Your task to perform on an android device: turn on location history Image 0: 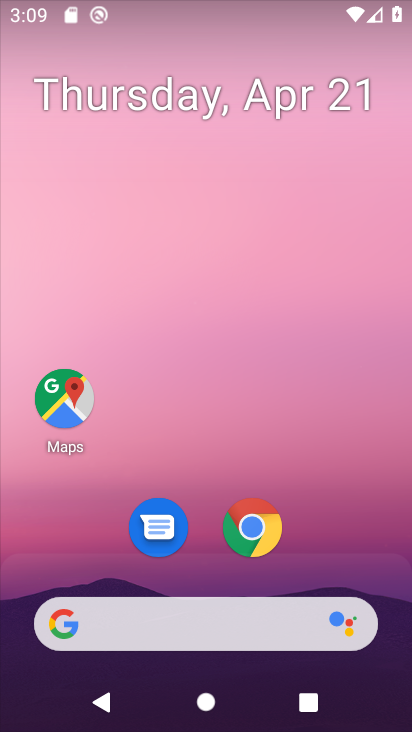
Step 0: click (257, 423)
Your task to perform on an android device: turn on location history Image 1: 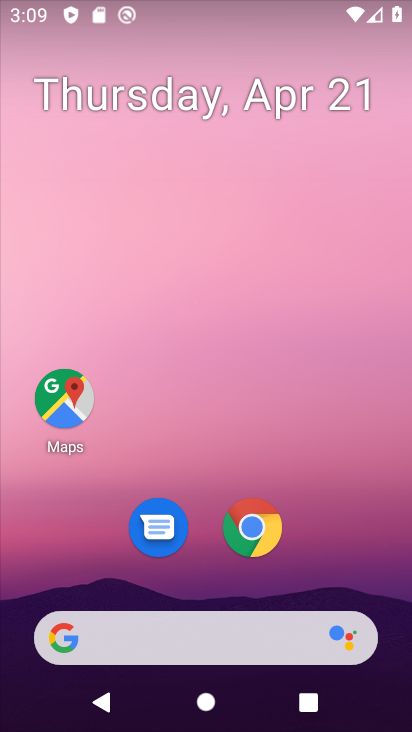
Step 1: drag from (279, 359) to (398, 122)
Your task to perform on an android device: turn on location history Image 2: 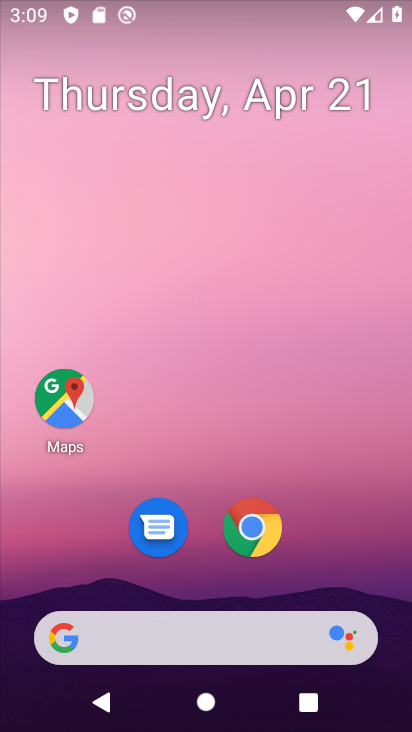
Step 2: drag from (155, 617) to (220, 105)
Your task to perform on an android device: turn on location history Image 3: 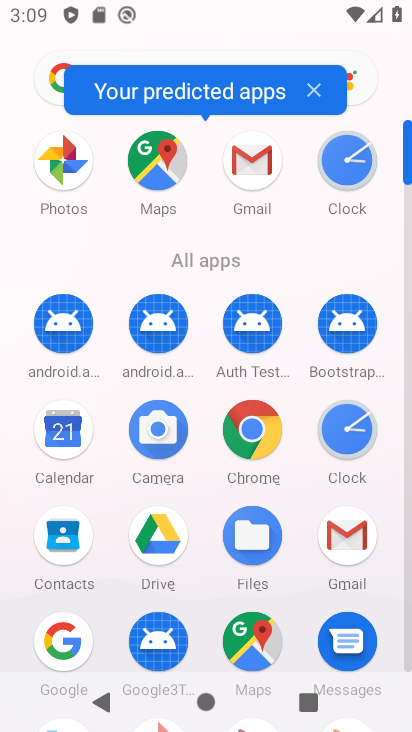
Step 3: drag from (200, 633) to (313, 282)
Your task to perform on an android device: turn on location history Image 4: 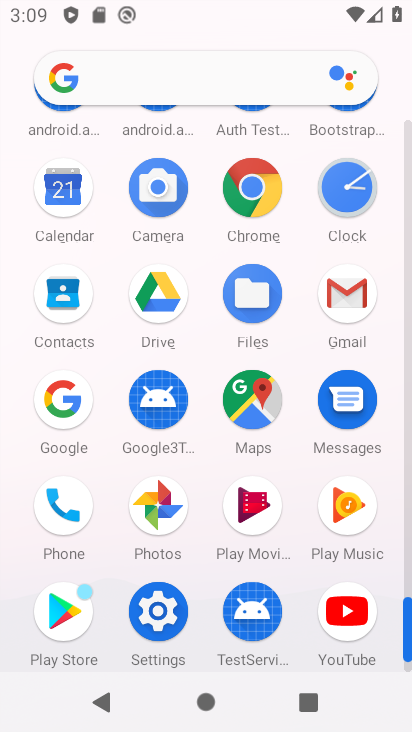
Step 4: click (165, 630)
Your task to perform on an android device: turn on location history Image 5: 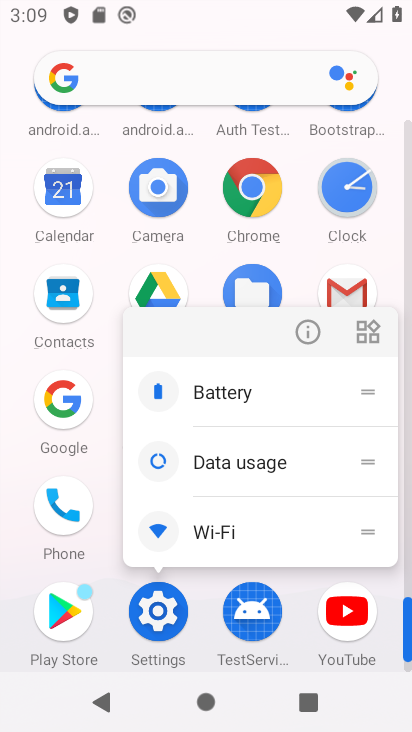
Step 5: click (162, 625)
Your task to perform on an android device: turn on location history Image 6: 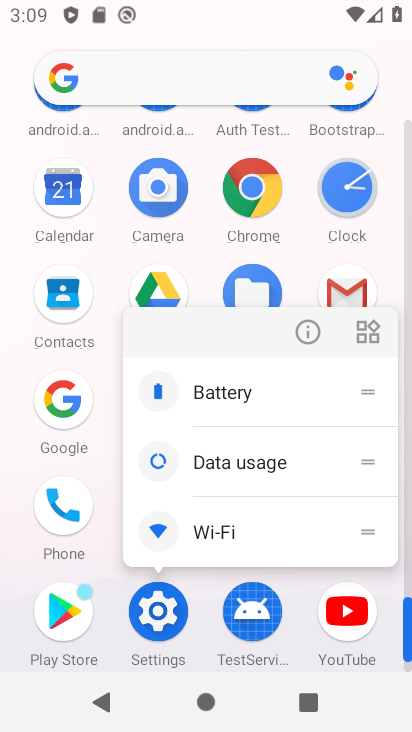
Step 6: click (161, 625)
Your task to perform on an android device: turn on location history Image 7: 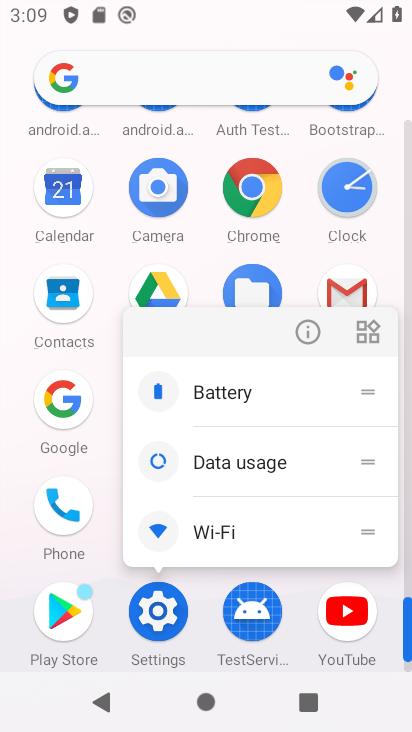
Step 7: click (157, 625)
Your task to perform on an android device: turn on location history Image 8: 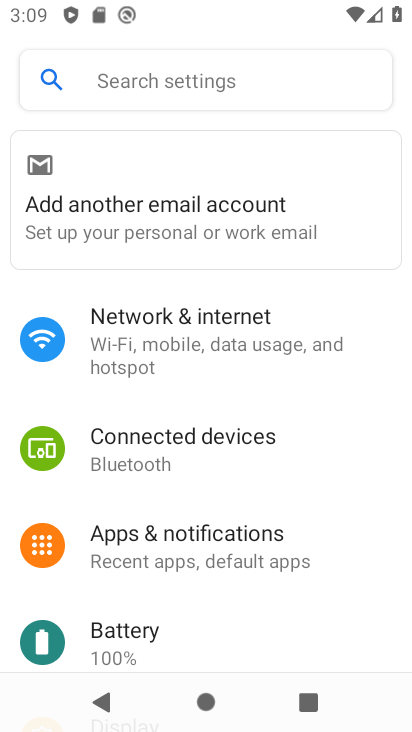
Step 8: drag from (195, 594) to (287, 291)
Your task to perform on an android device: turn on location history Image 9: 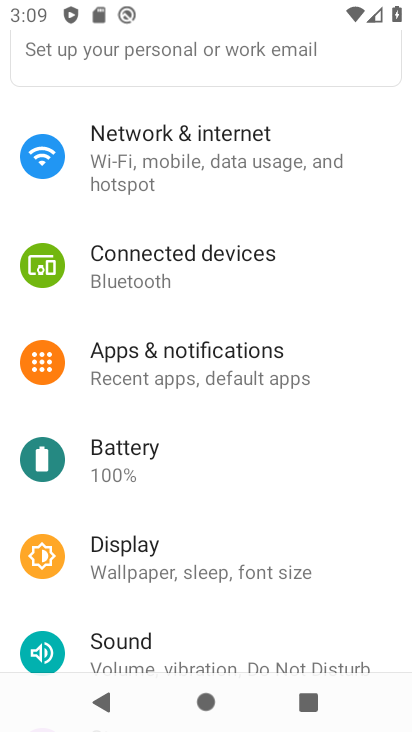
Step 9: drag from (212, 650) to (343, 321)
Your task to perform on an android device: turn on location history Image 10: 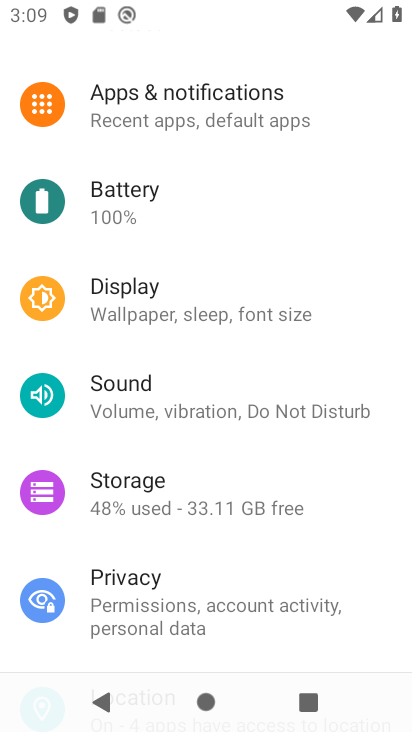
Step 10: drag from (258, 494) to (370, 298)
Your task to perform on an android device: turn on location history Image 11: 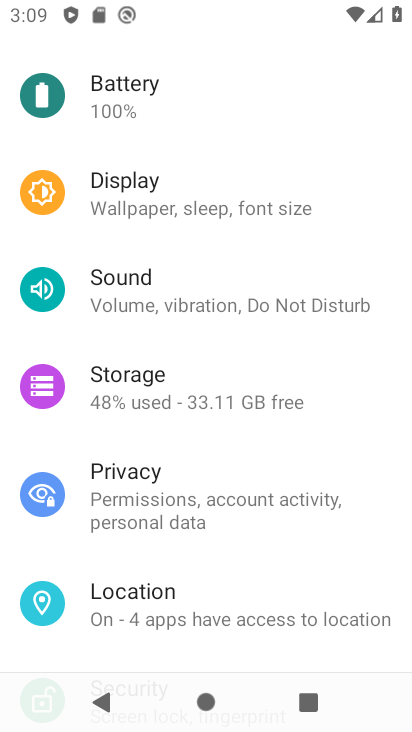
Step 11: click (172, 609)
Your task to perform on an android device: turn on location history Image 12: 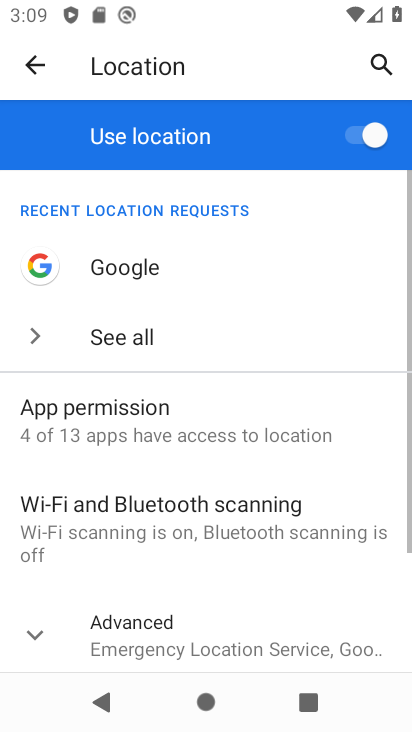
Step 12: click (166, 634)
Your task to perform on an android device: turn on location history Image 13: 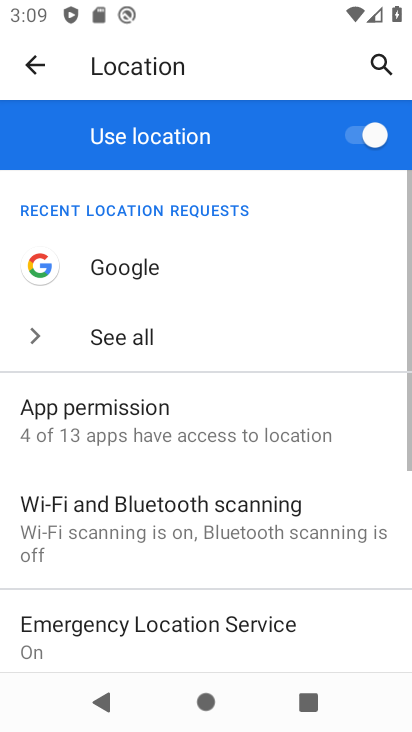
Step 13: drag from (182, 505) to (259, 277)
Your task to perform on an android device: turn on location history Image 14: 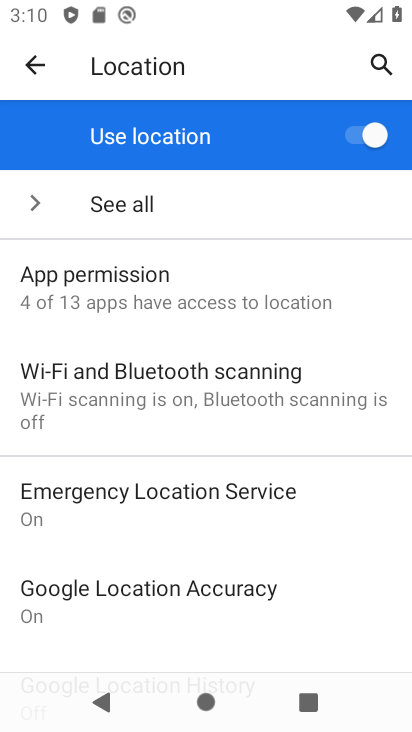
Step 14: drag from (223, 588) to (331, 289)
Your task to perform on an android device: turn on location history Image 15: 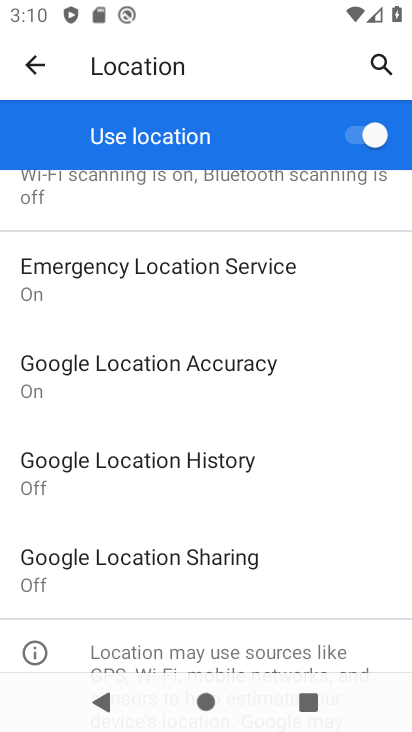
Step 15: click (229, 478)
Your task to perform on an android device: turn on location history Image 16: 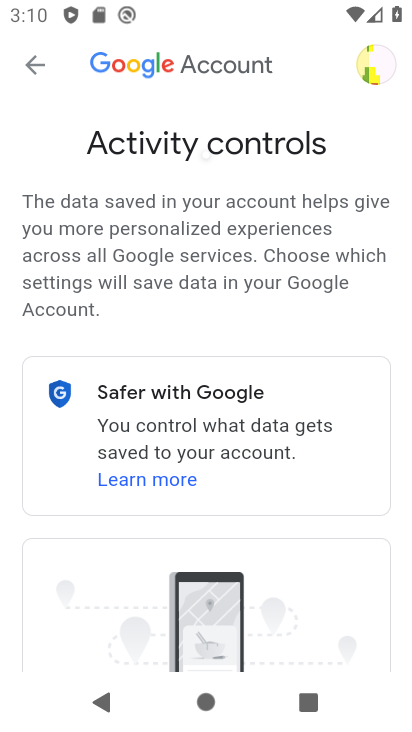
Step 16: drag from (184, 646) to (300, 290)
Your task to perform on an android device: turn on location history Image 17: 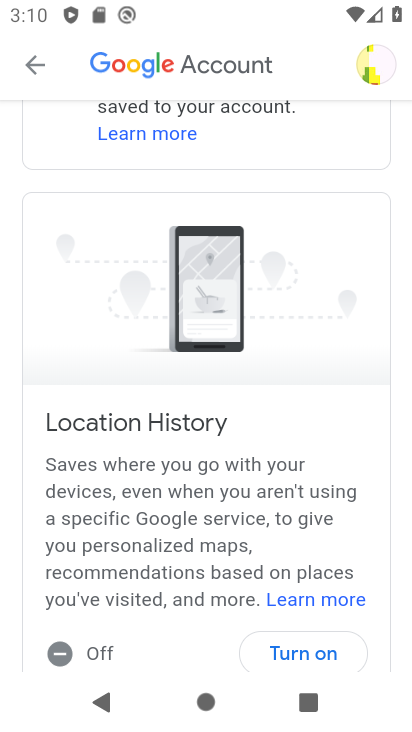
Step 17: click (317, 654)
Your task to perform on an android device: turn on location history Image 18: 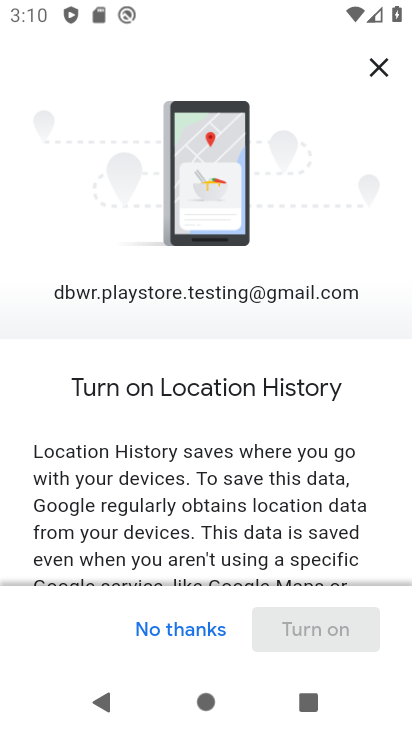
Step 18: drag from (235, 545) to (379, 214)
Your task to perform on an android device: turn on location history Image 19: 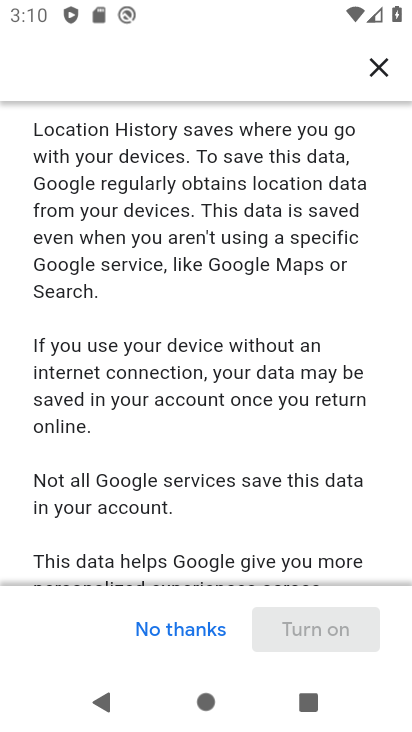
Step 19: drag from (289, 540) to (393, 244)
Your task to perform on an android device: turn on location history Image 20: 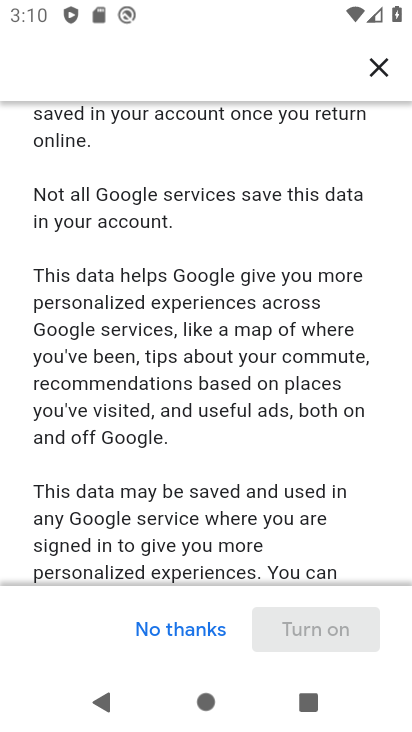
Step 20: drag from (264, 474) to (410, 295)
Your task to perform on an android device: turn on location history Image 21: 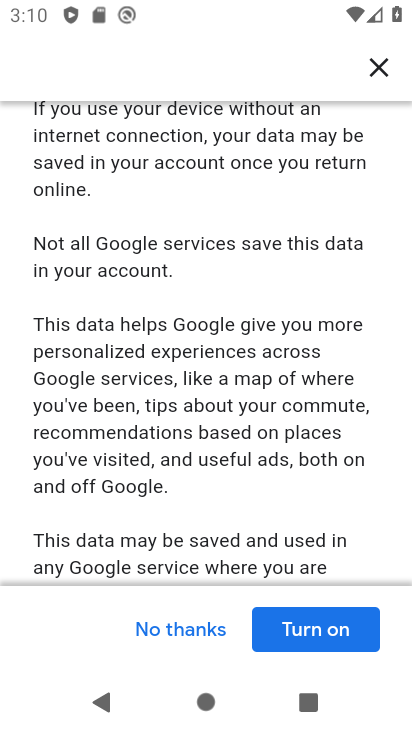
Step 21: click (330, 634)
Your task to perform on an android device: turn on location history Image 22: 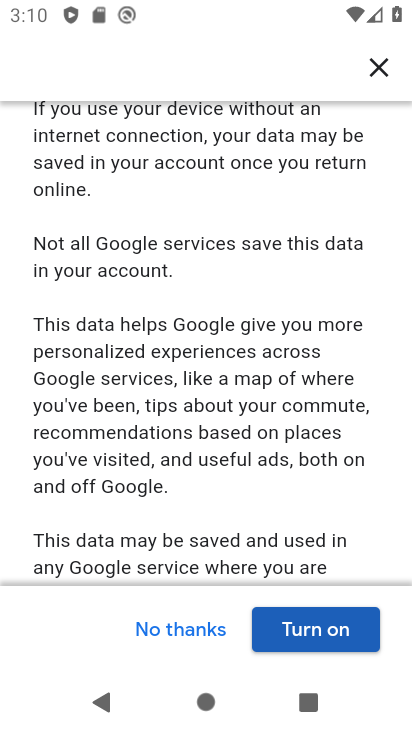
Step 22: click (316, 642)
Your task to perform on an android device: turn on location history Image 23: 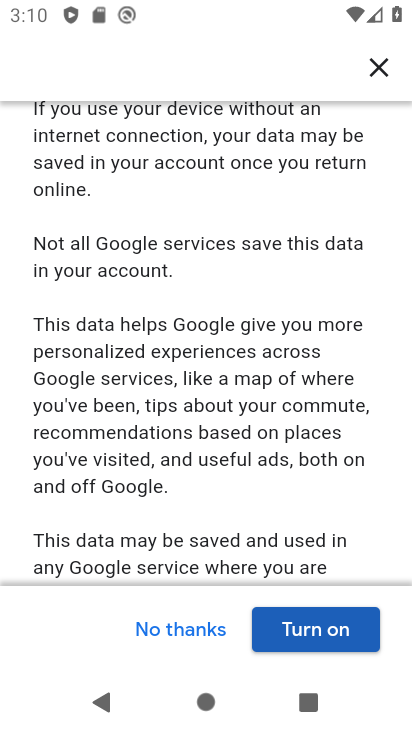
Step 23: click (311, 645)
Your task to perform on an android device: turn on location history Image 24: 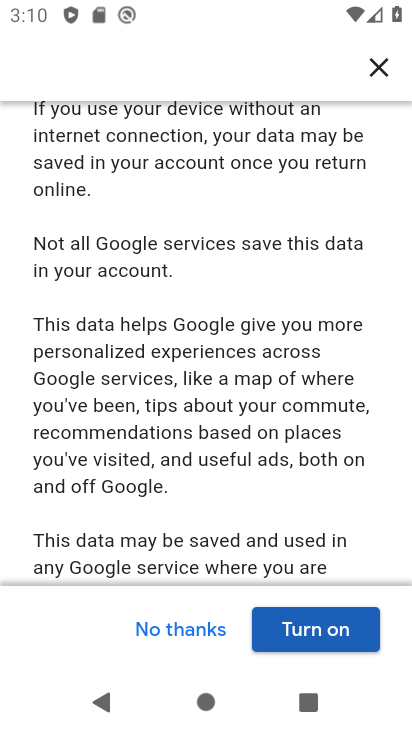
Step 24: click (288, 642)
Your task to perform on an android device: turn on location history Image 25: 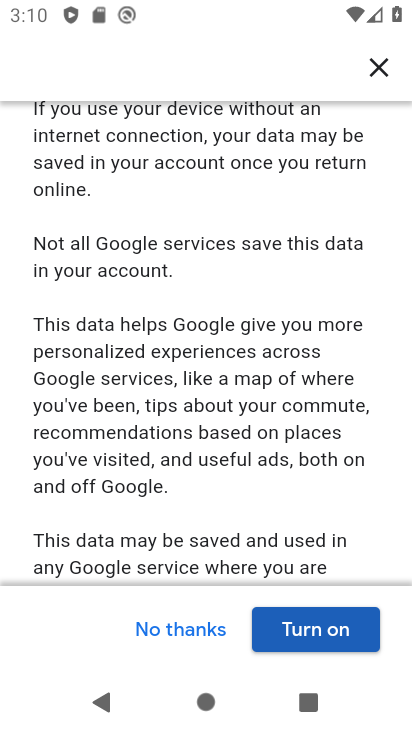
Step 25: drag from (235, 443) to (373, 120)
Your task to perform on an android device: turn on location history Image 26: 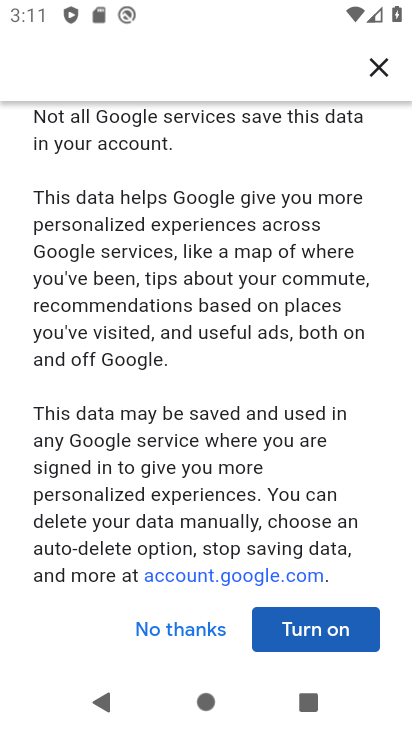
Step 26: click (325, 633)
Your task to perform on an android device: turn on location history Image 27: 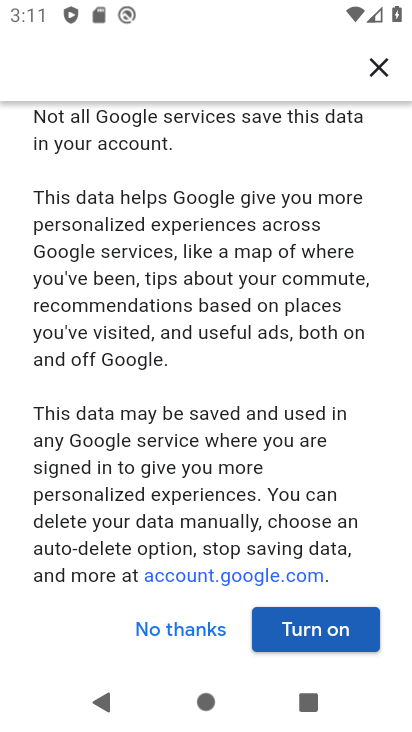
Step 27: click (340, 644)
Your task to perform on an android device: turn on location history Image 28: 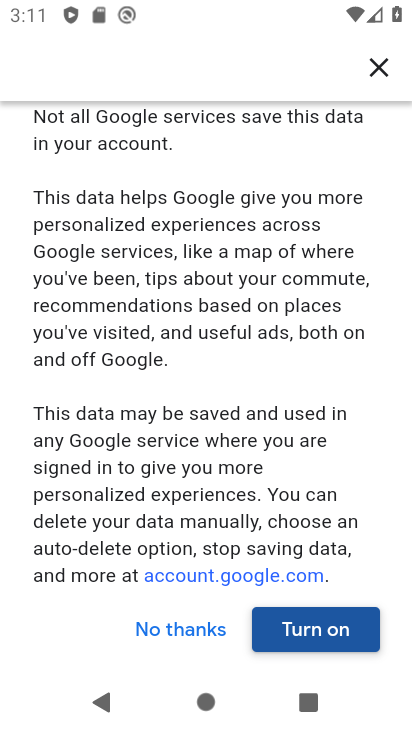
Step 28: click (339, 641)
Your task to perform on an android device: turn on location history Image 29: 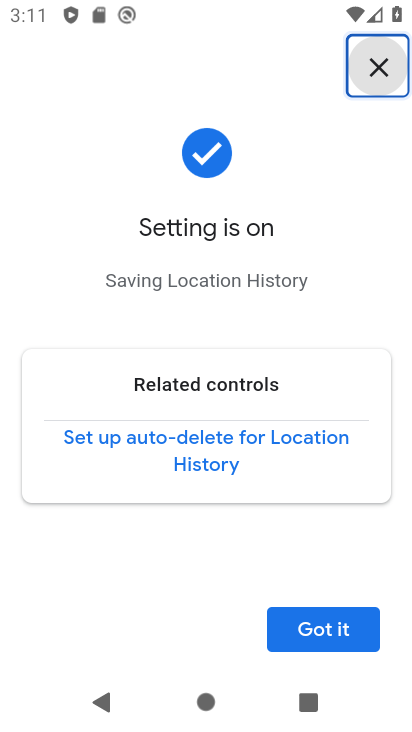
Step 29: click (337, 636)
Your task to perform on an android device: turn on location history Image 30: 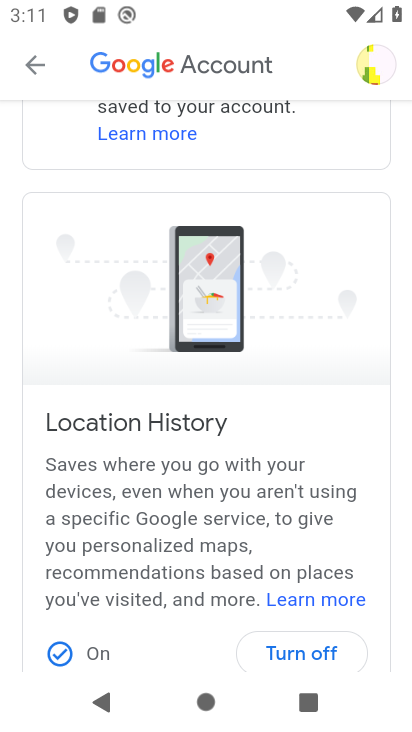
Step 30: task complete